Your task to perform on an android device: Go to battery settings Image 0: 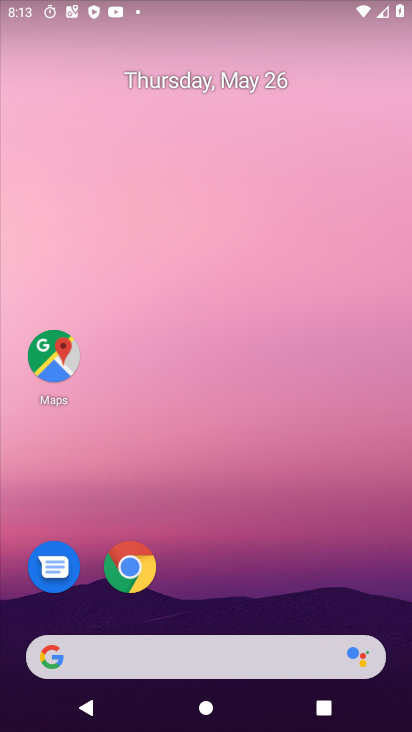
Step 0: press home button
Your task to perform on an android device: Go to battery settings Image 1: 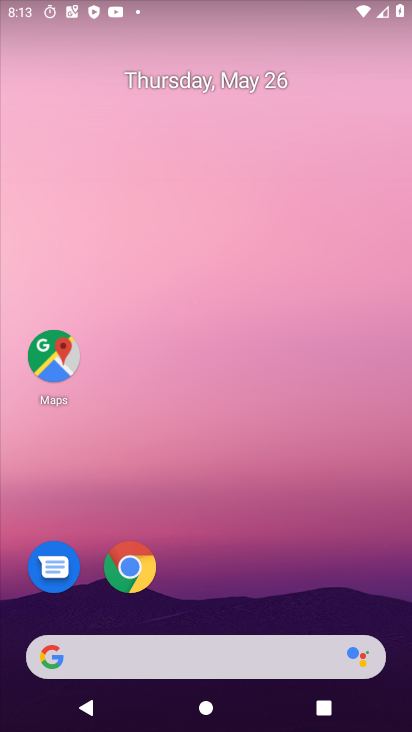
Step 1: drag from (169, 652) to (273, 58)
Your task to perform on an android device: Go to battery settings Image 2: 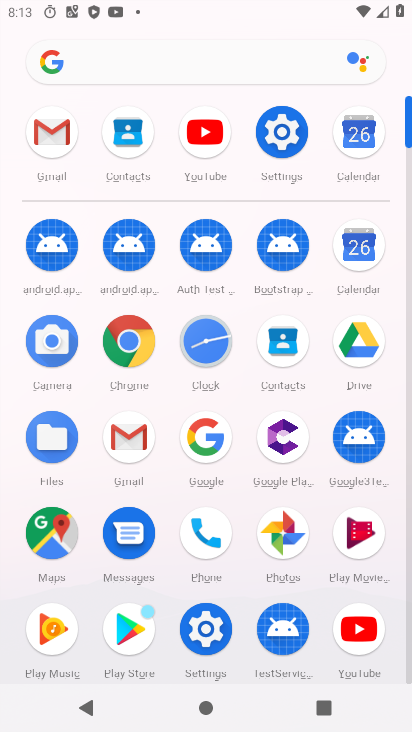
Step 2: click (276, 136)
Your task to perform on an android device: Go to battery settings Image 3: 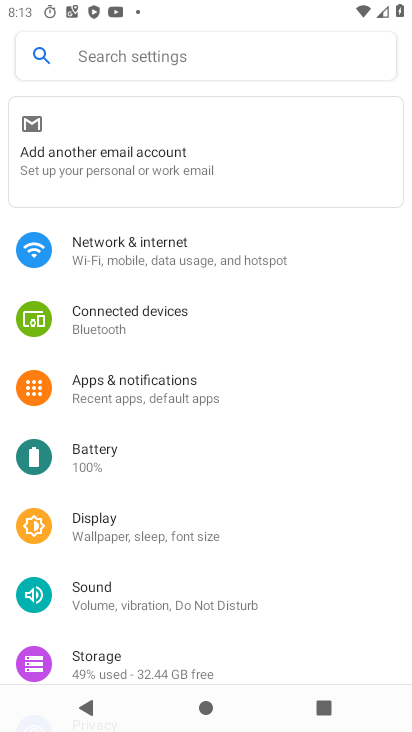
Step 3: click (100, 447)
Your task to perform on an android device: Go to battery settings Image 4: 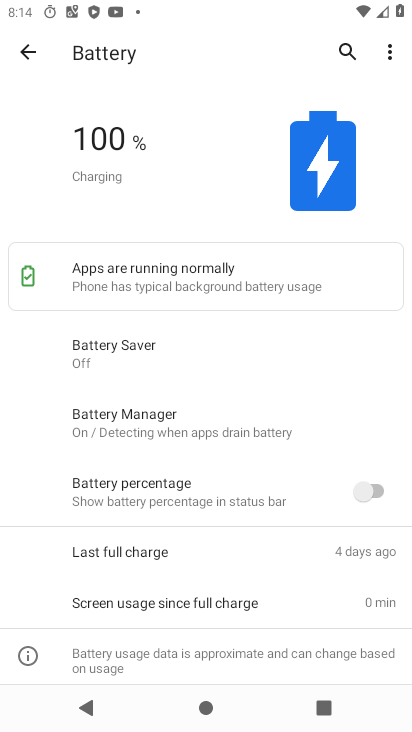
Step 4: task complete